Your task to perform on an android device: Open accessibility settings Image 0: 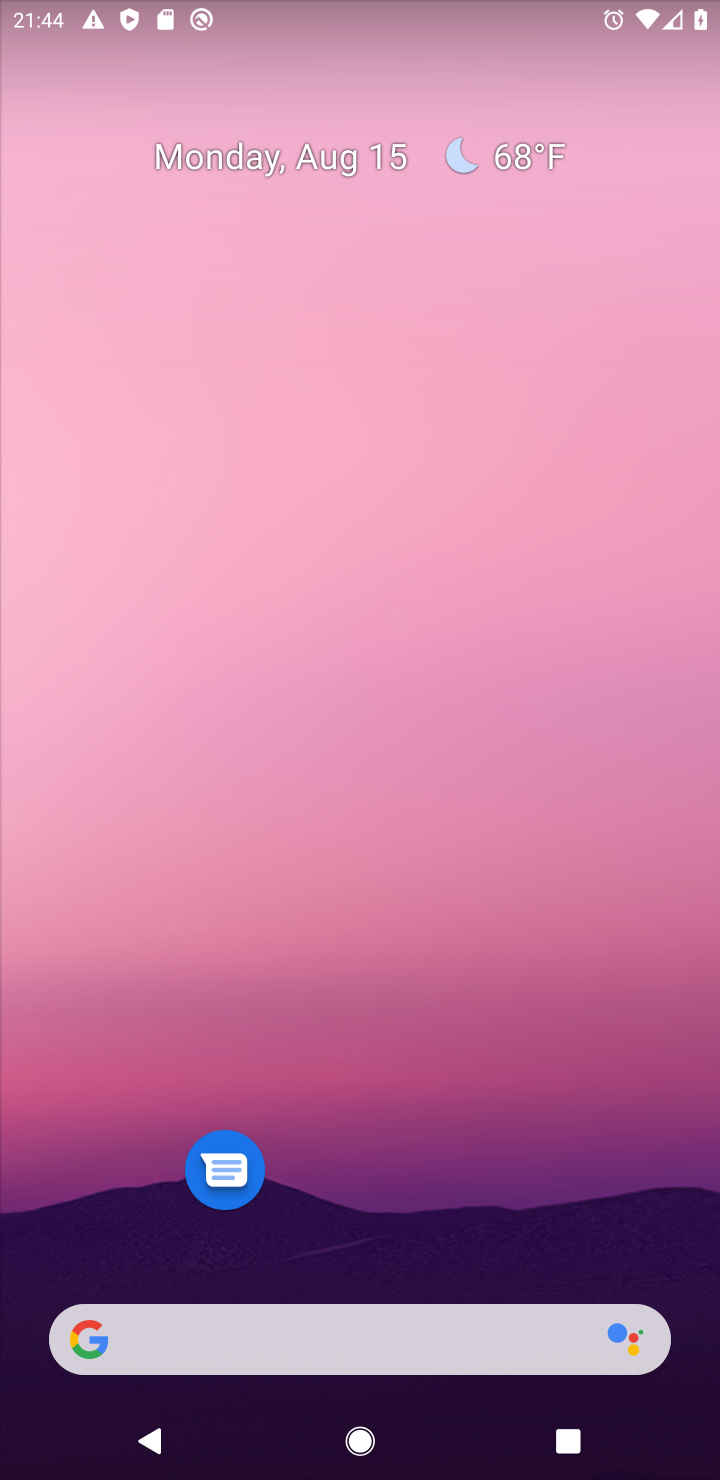
Step 0: drag from (354, 810) to (466, 185)
Your task to perform on an android device: Open accessibility settings Image 1: 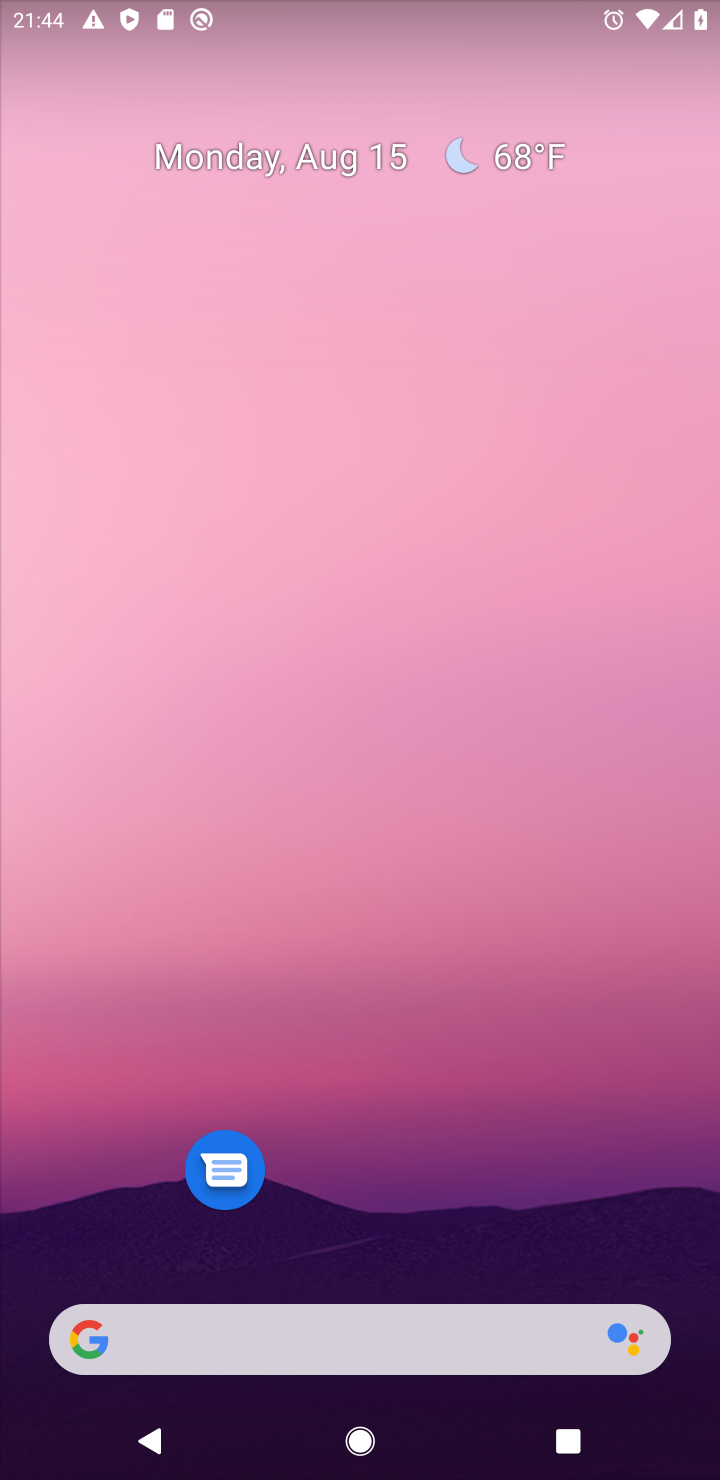
Step 1: drag from (376, 1312) to (594, 44)
Your task to perform on an android device: Open accessibility settings Image 2: 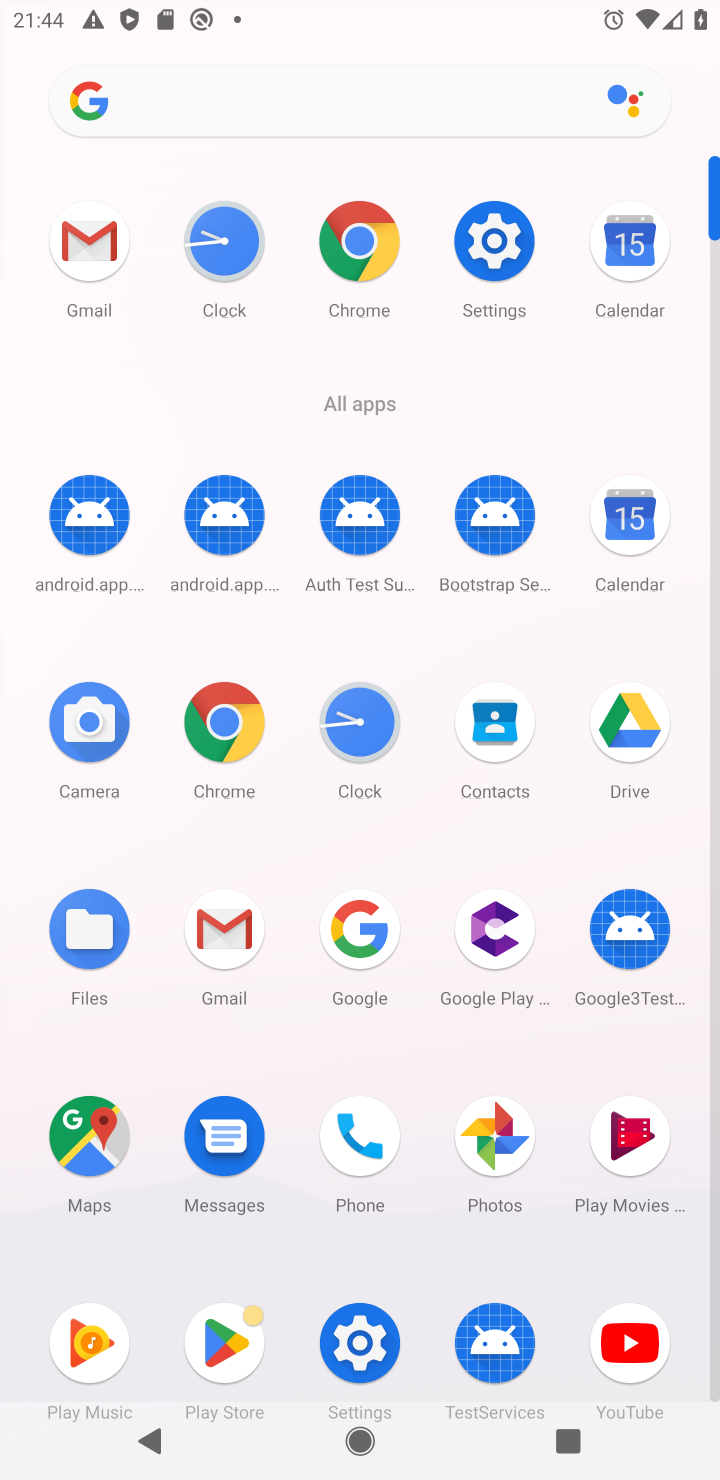
Step 2: click (478, 261)
Your task to perform on an android device: Open accessibility settings Image 3: 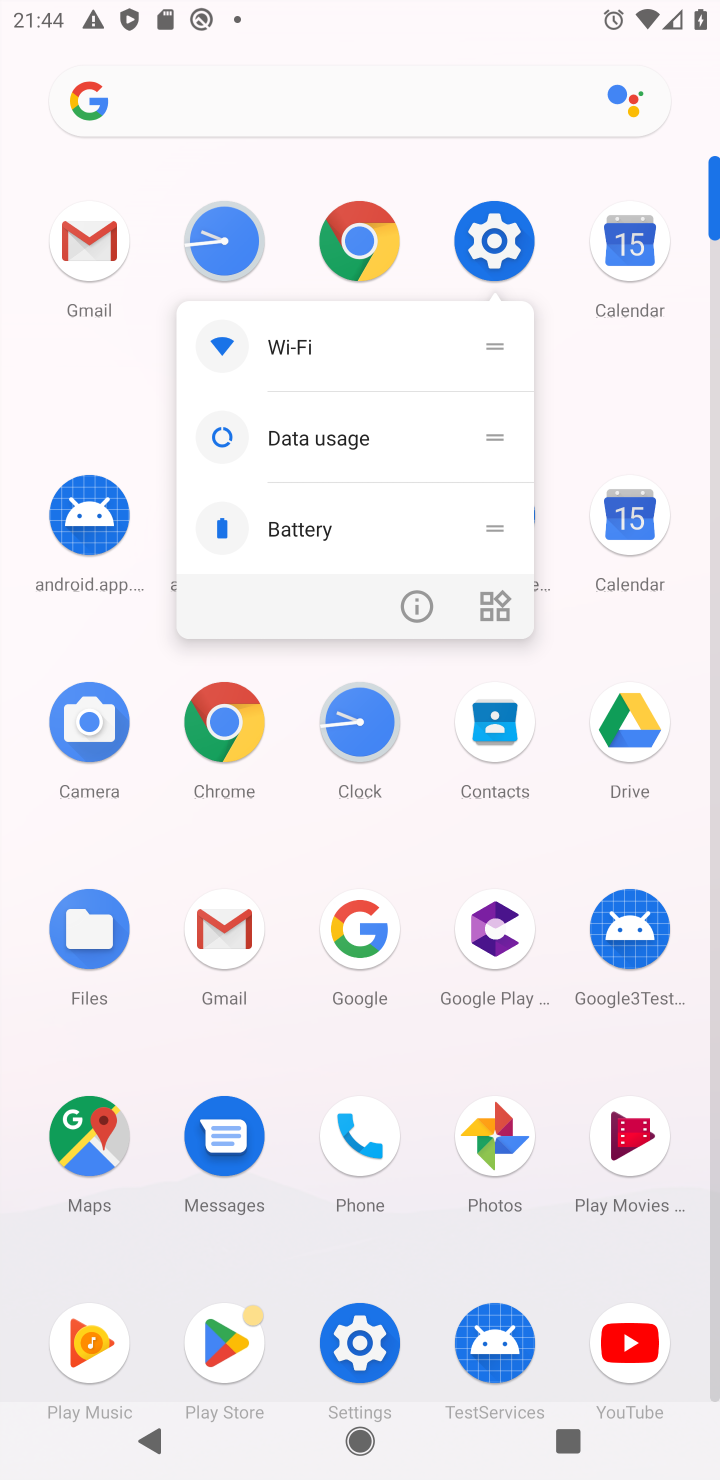
Step 3: click (478, 270)
Your task to perform on an android device: Open accessibility settings Image 4: 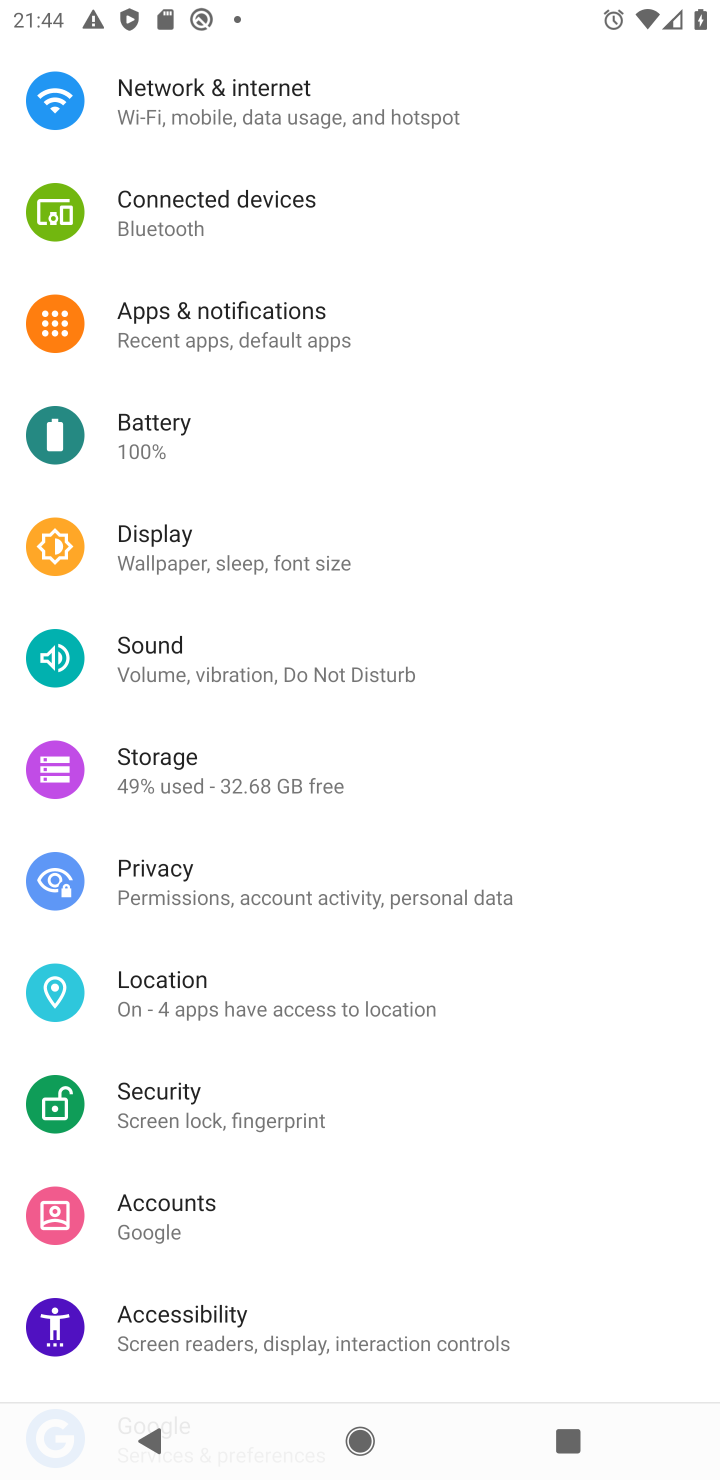
Step 4: click (478, 268)
Your task to perform on an android device: Open accessibility settings Image 5: 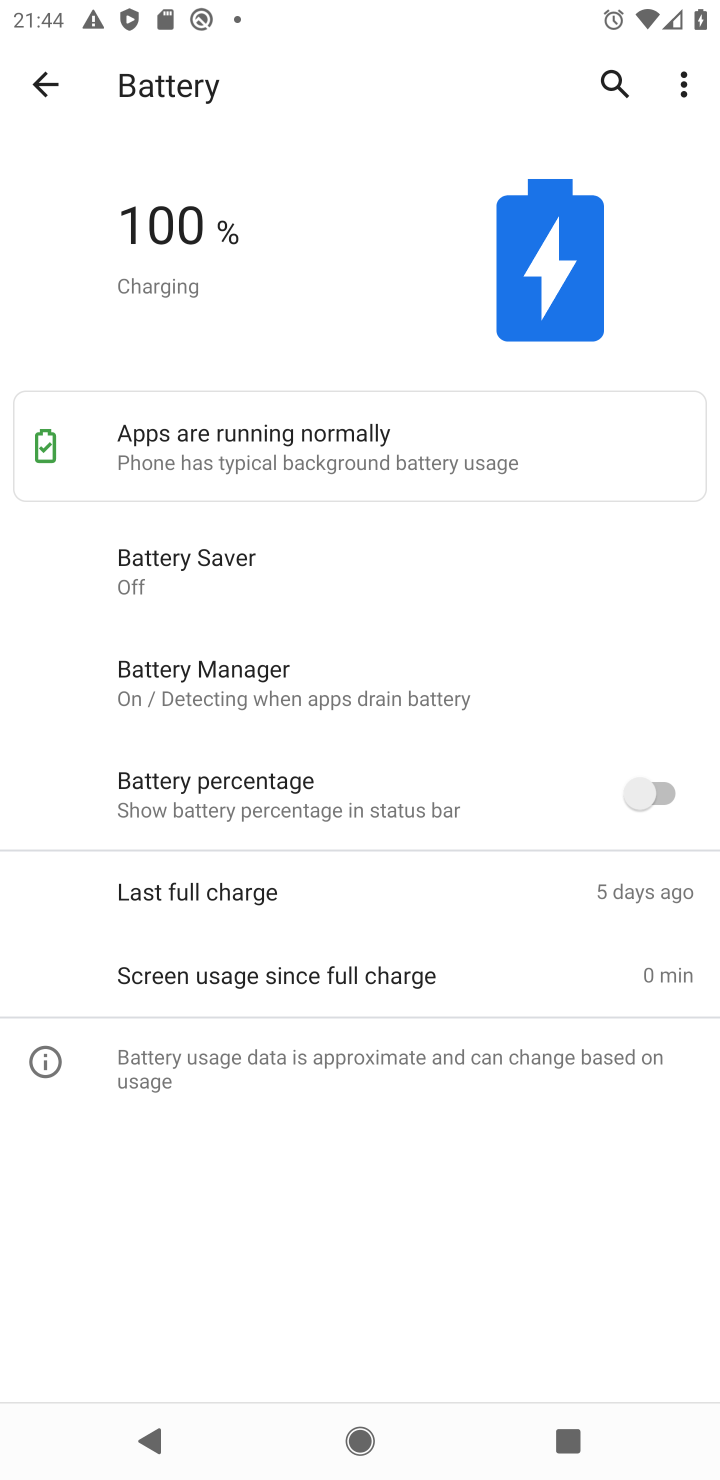
Step 5: click (24, 68)
Your task to perform on an android device: Open accessibility settings Image 6: 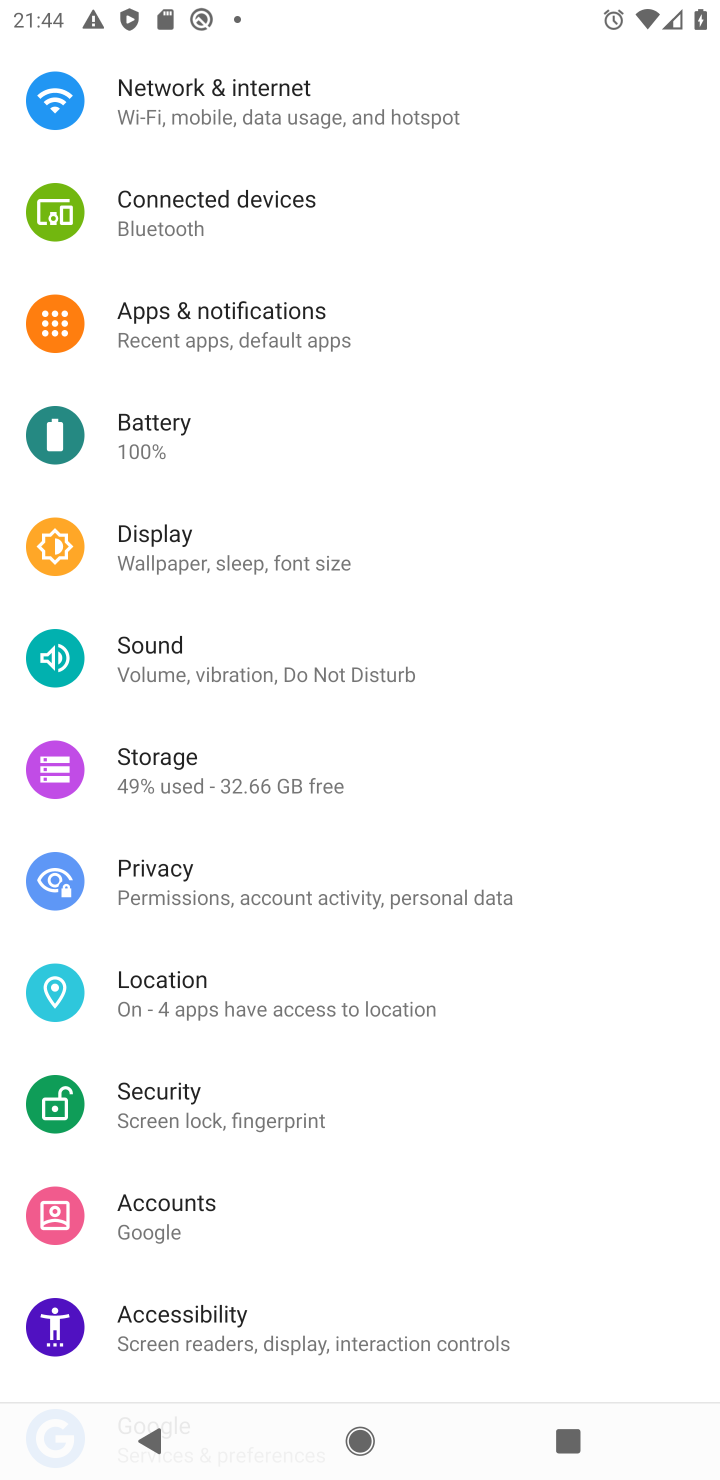
Step 6: click (314, 1351)
Your task to perform on an android device: Open accessibility settings Image 7: 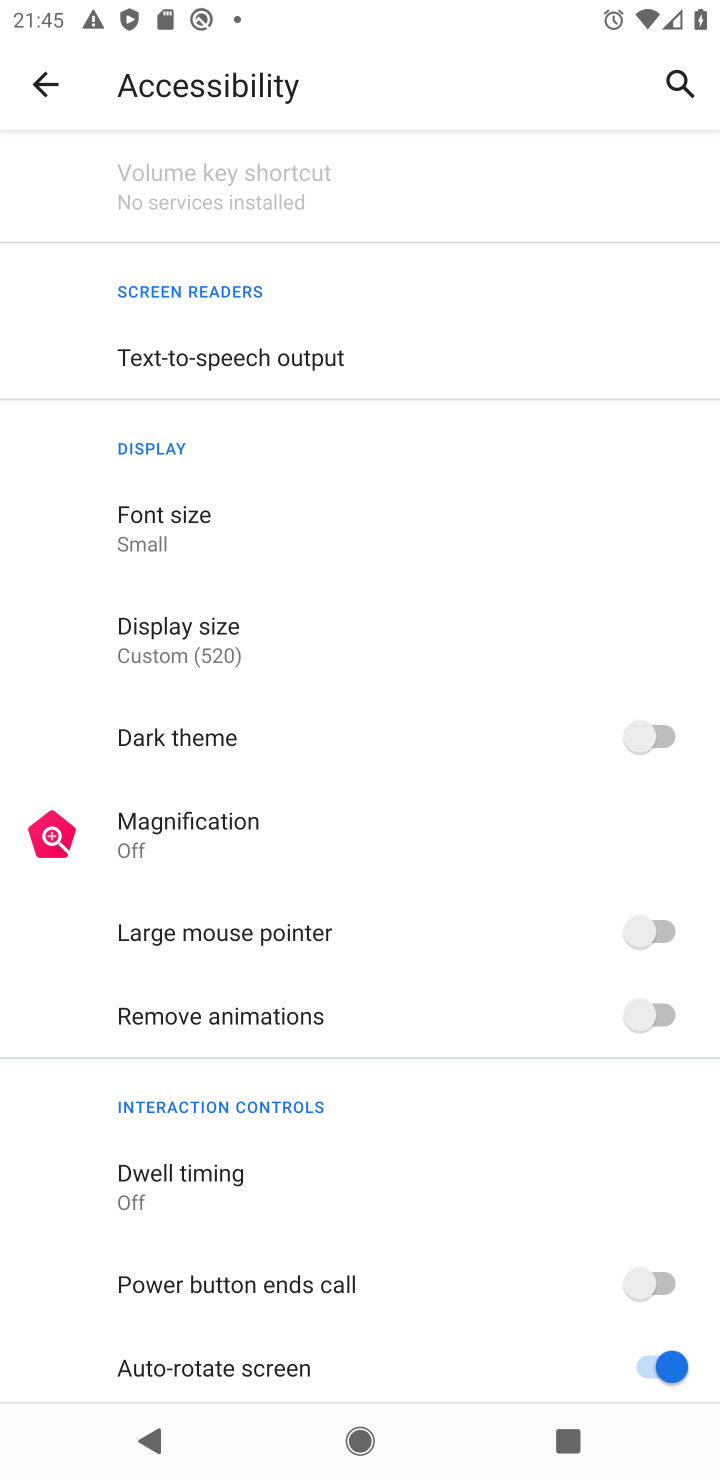
Step 7: task complete